Your task to perform on an android device: Go to privacy settings Image 0: 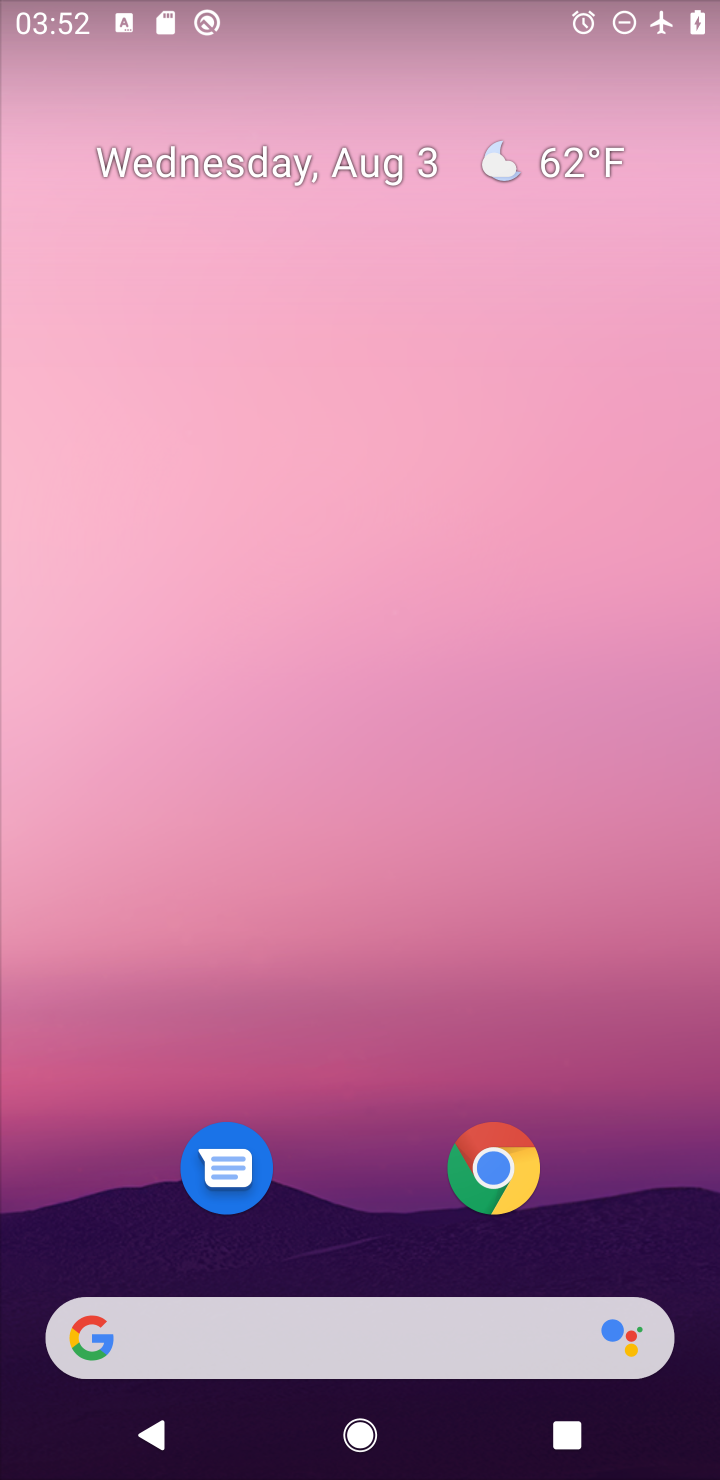
Step 0: press home button
Your task to perform on an android device: Go to privacy settings Image 1: 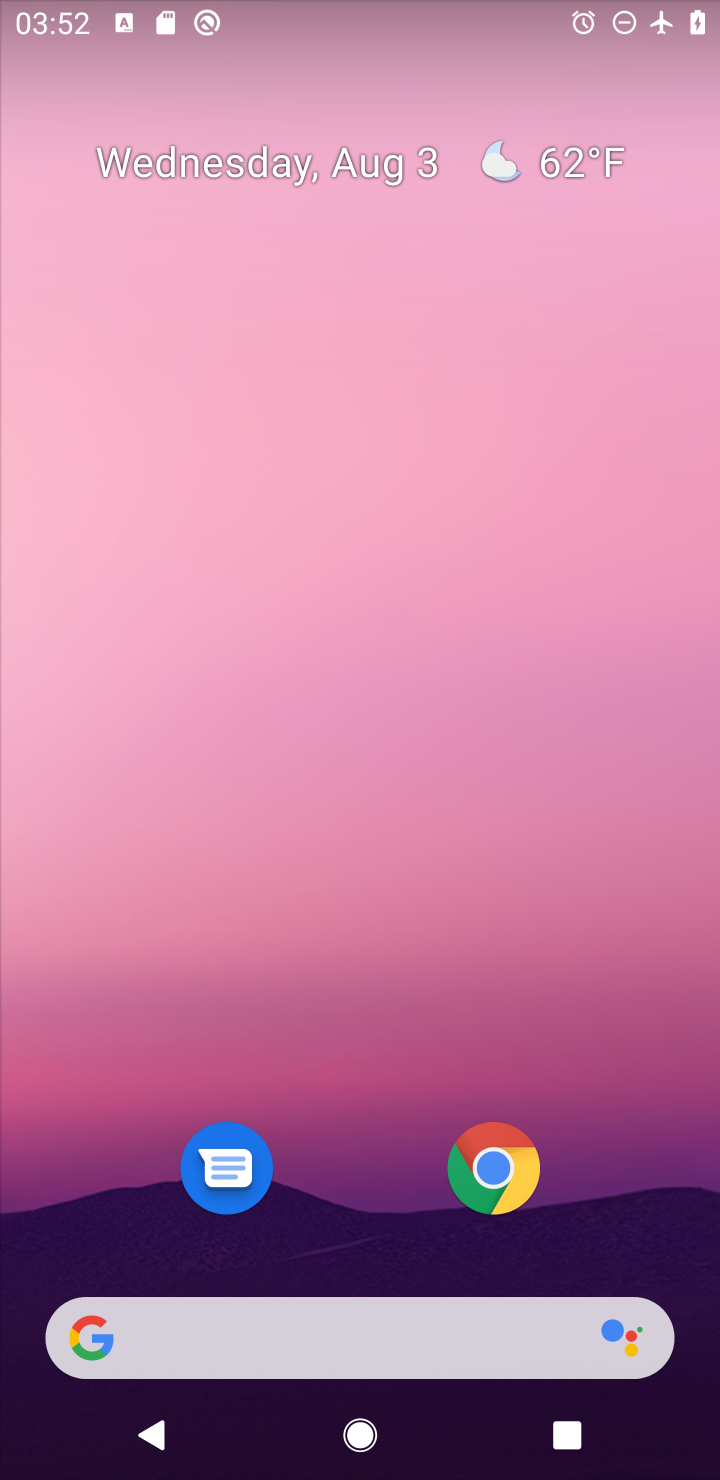
Step 1: drag from (673, 1244) to (574, 260)
Your task to perform on an android device: Go to privacy settings Image 2: 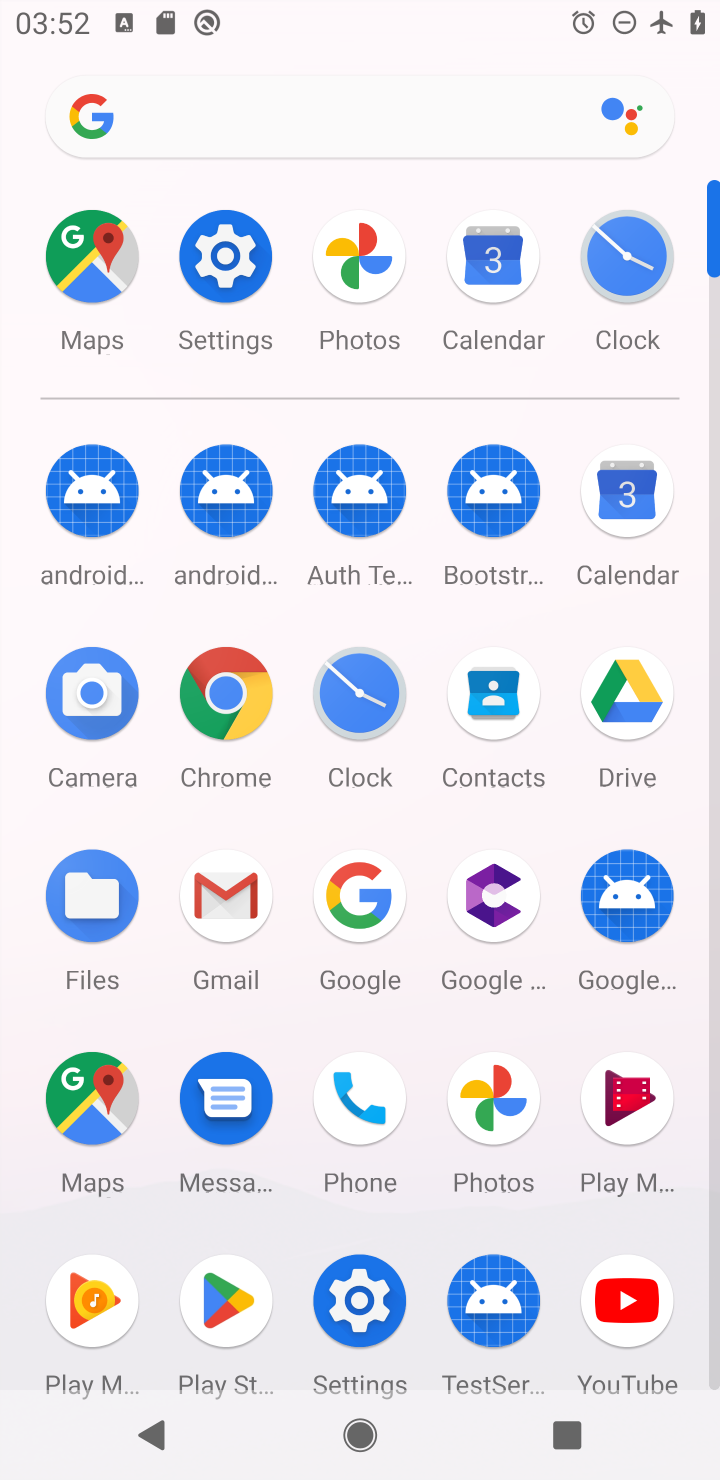
Step 2: click (356, 1304)
Your task to perform on an android device: Go to privacy settings Image 3: 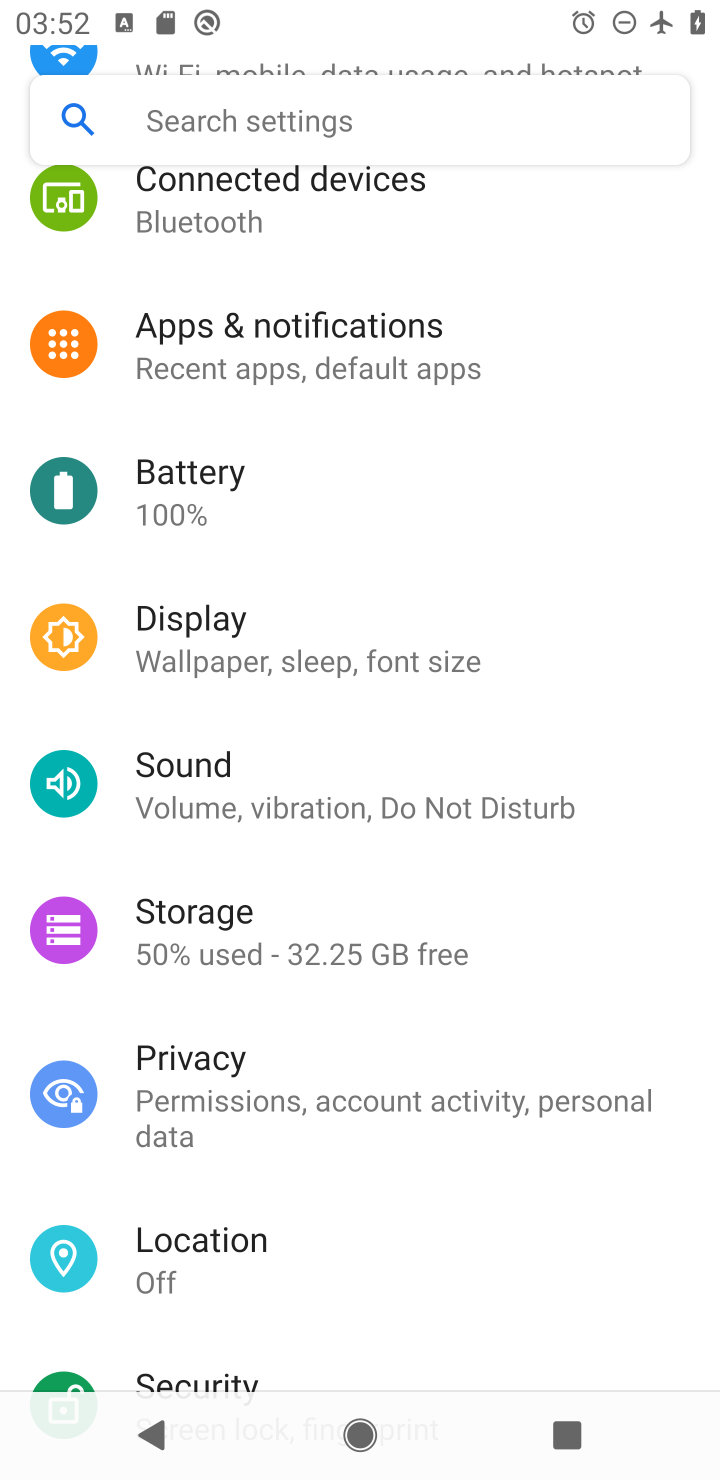
Step 3: click (202, 1080)
Your task to perform on an android device: Go to privacy settings Image 4: 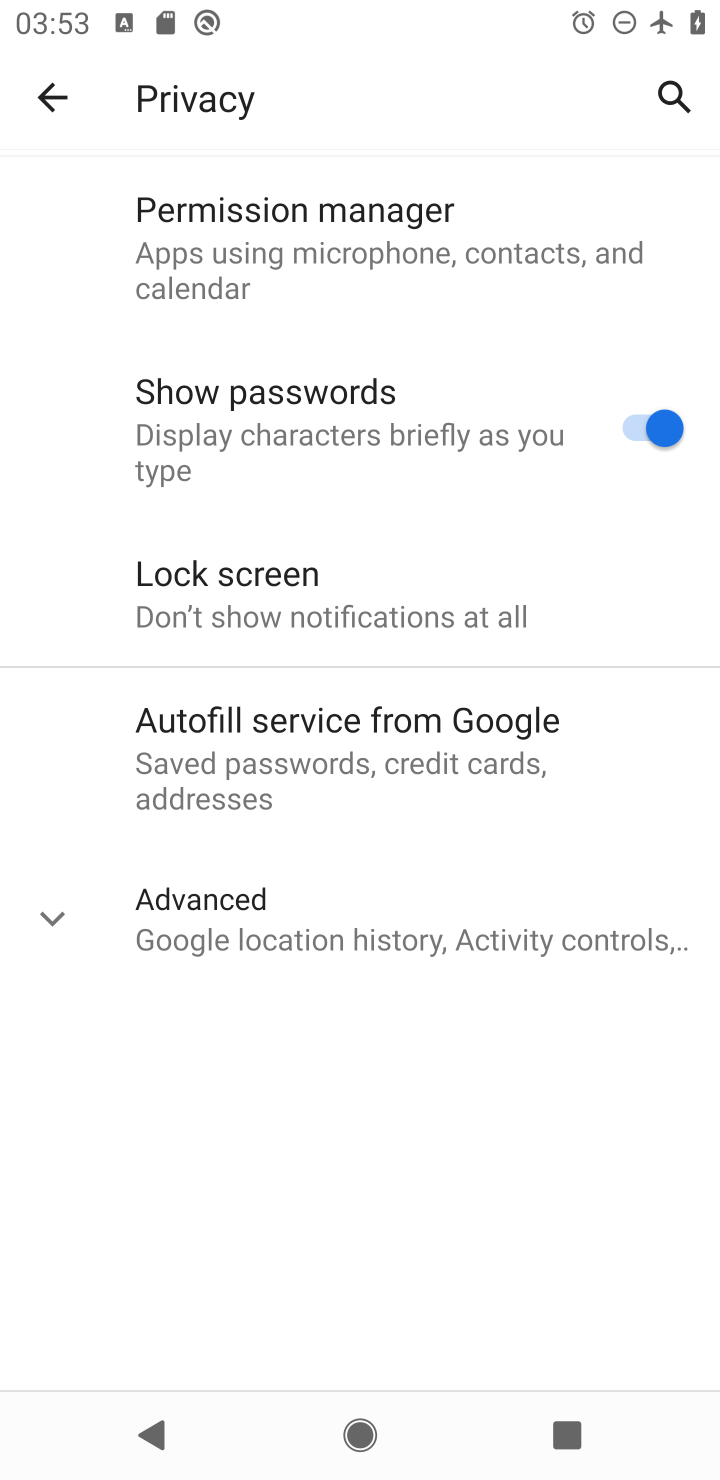
Step 4: click (51, 917)
Your task to perform on an android device: Go to privacy settings Image 5: 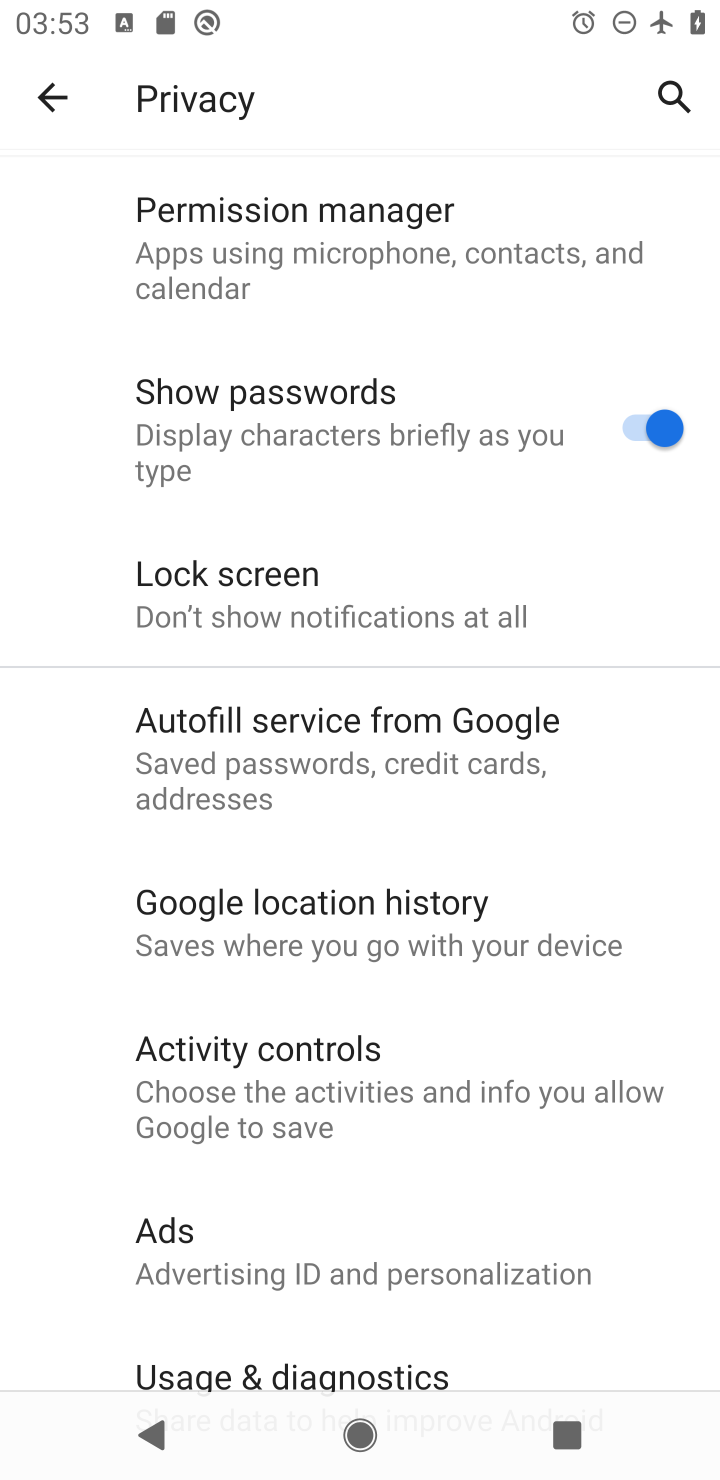
Step 5: task complete